Your task to perform on an android device: toggle sleep mode Image 0: 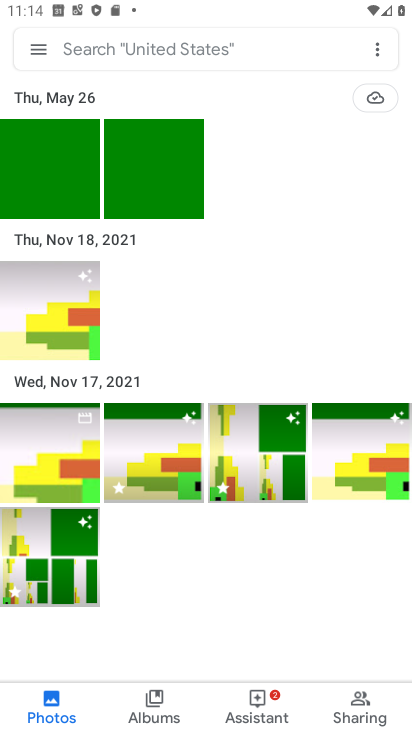
Step 0: press home button
Your task to perform on an android device: toggle sleep mode Image 1: 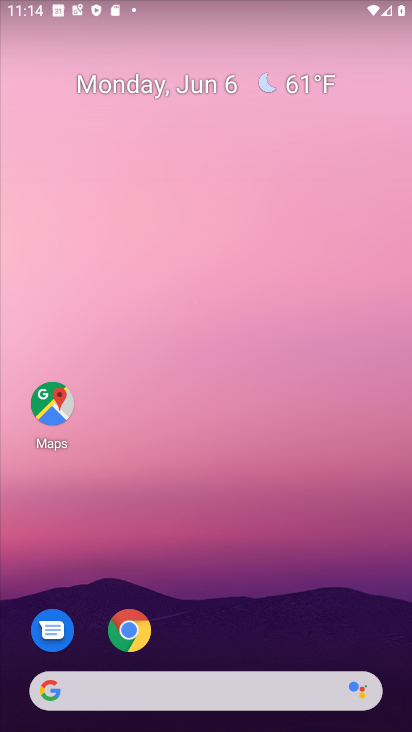
Step 1: drag from (324, 344) to (329, 151)
Your task to perform on an android device: toggle sleep mode Image 2: 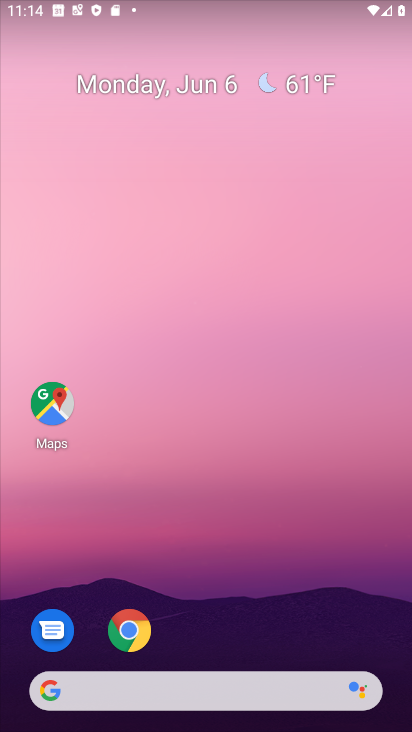
Step 2: drag from (336, 597) to (325, 227)
Your task to perform on an android device: toggle sleep mode Image 3: 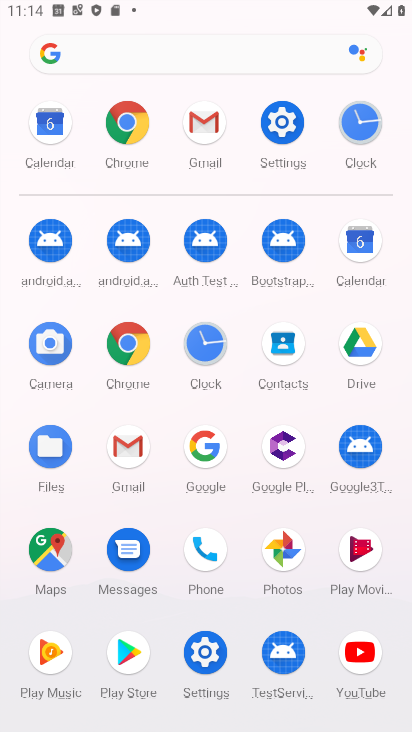
Step 3: click (214, 646)
Your task to perform on an android device: toggle sleep mode Image 4: 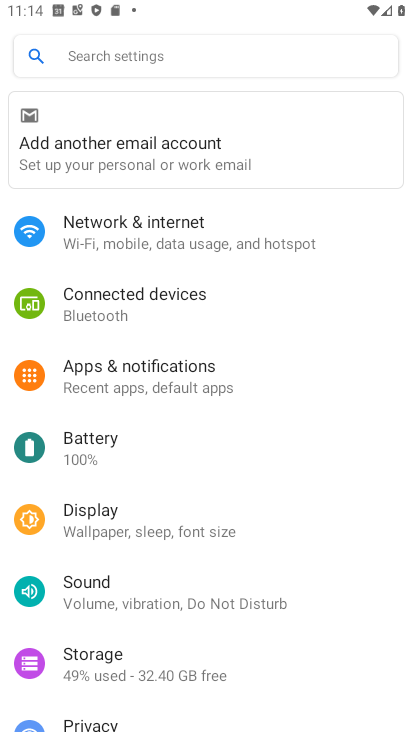
Step 4: click (188, 54)
Your task to perform on an android device: toggle sleep mode Image 5: 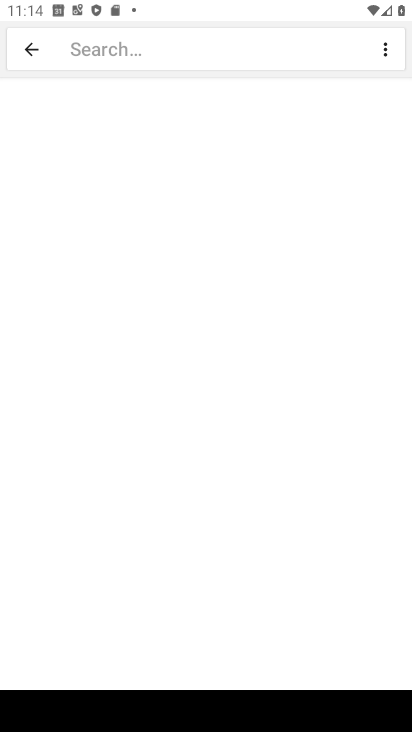
Step 5: type "sleep mode"
Your task to perform on an android device: toggle sleep mode Image 6: 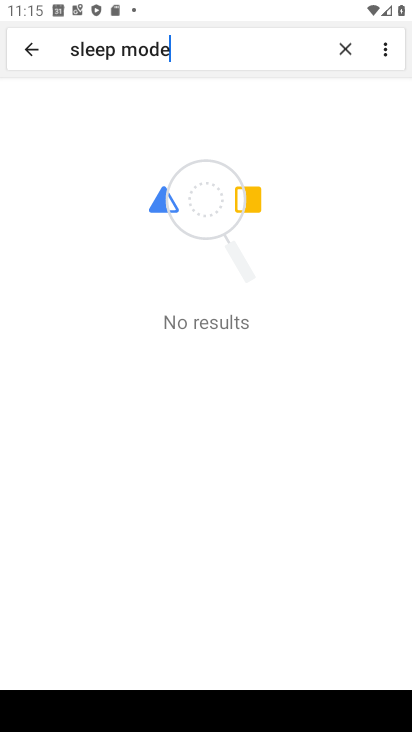
Step 6: task complete